Your task to perform on an android device: turn vacation reply on in the gmail app Image 0: 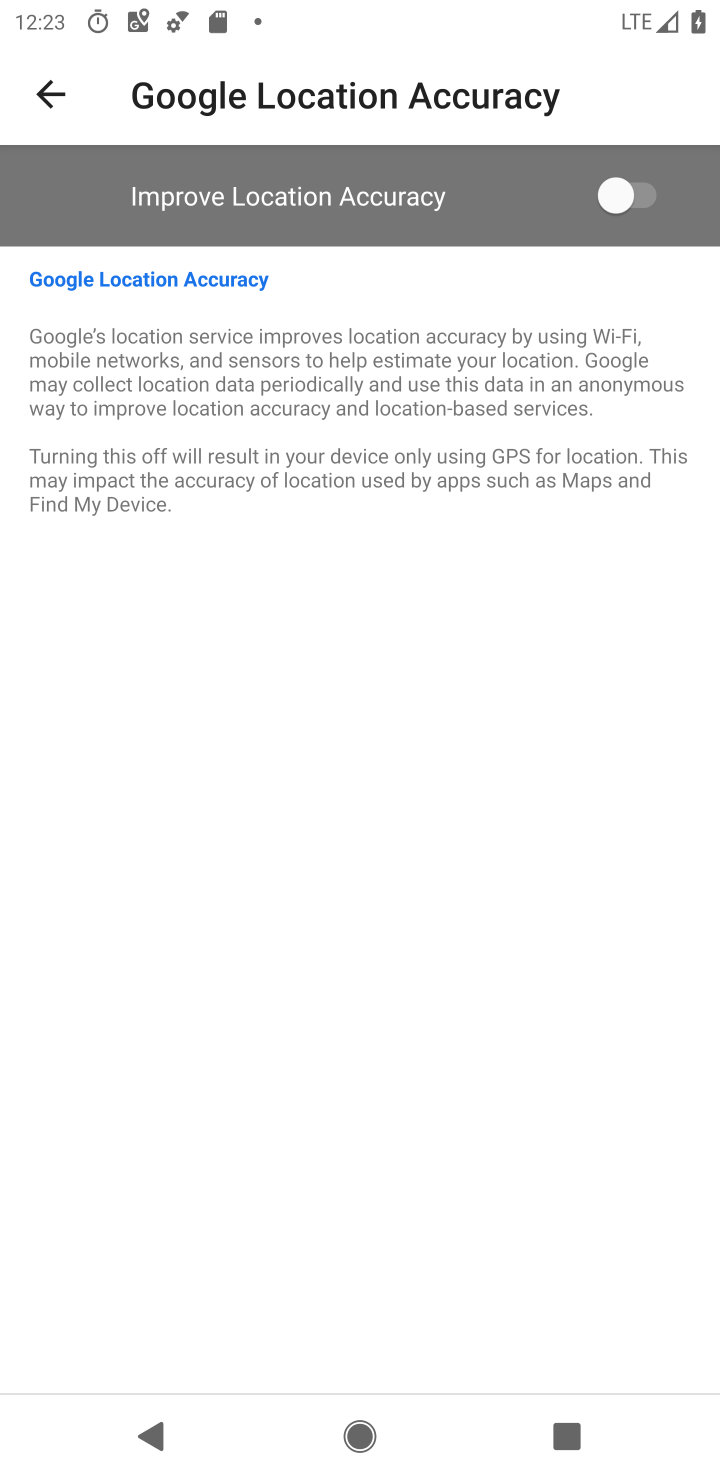
Step 0: click (532, 700)
Your task to perform on an android device: turn vacation reply on in the gmail app Image 1: 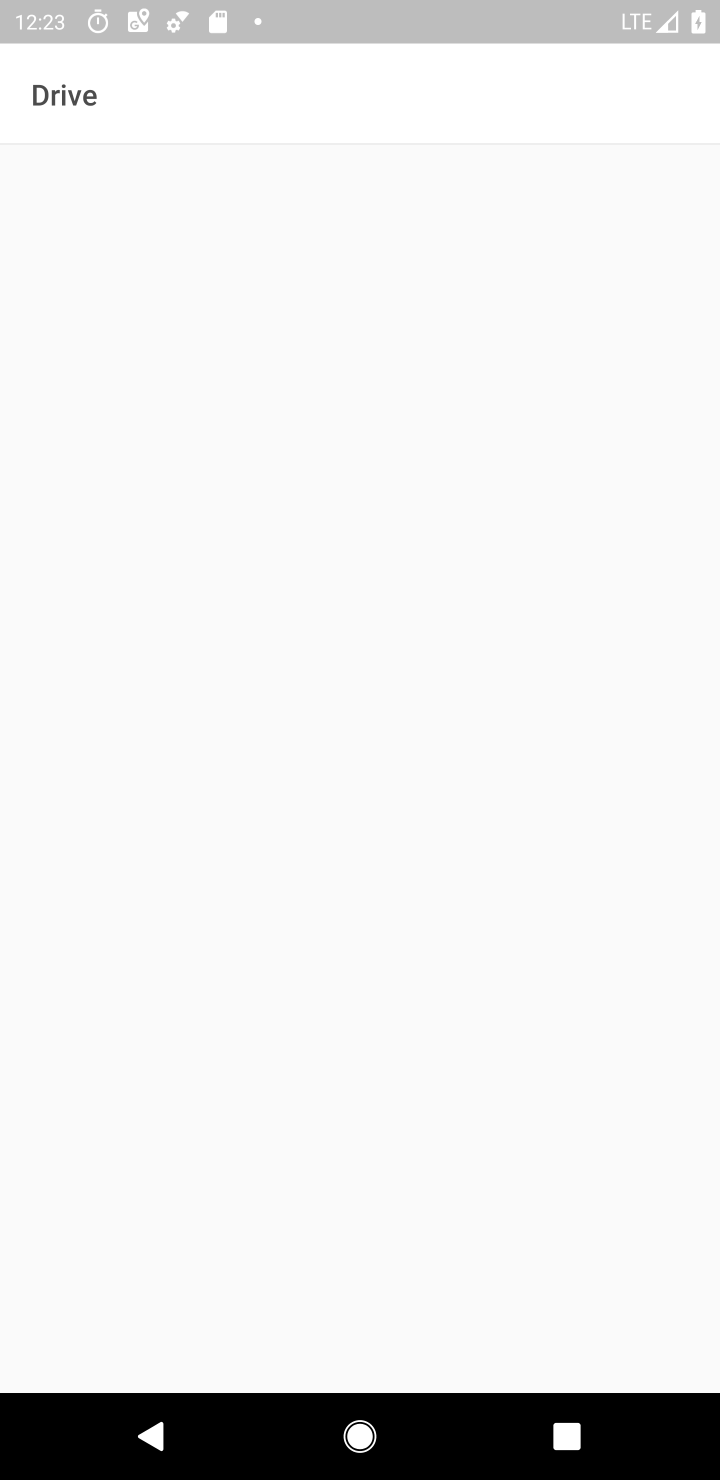
Step 1: press home button
Your task to perform on an android device: turn vacation reply on in the gmail app Image 2: 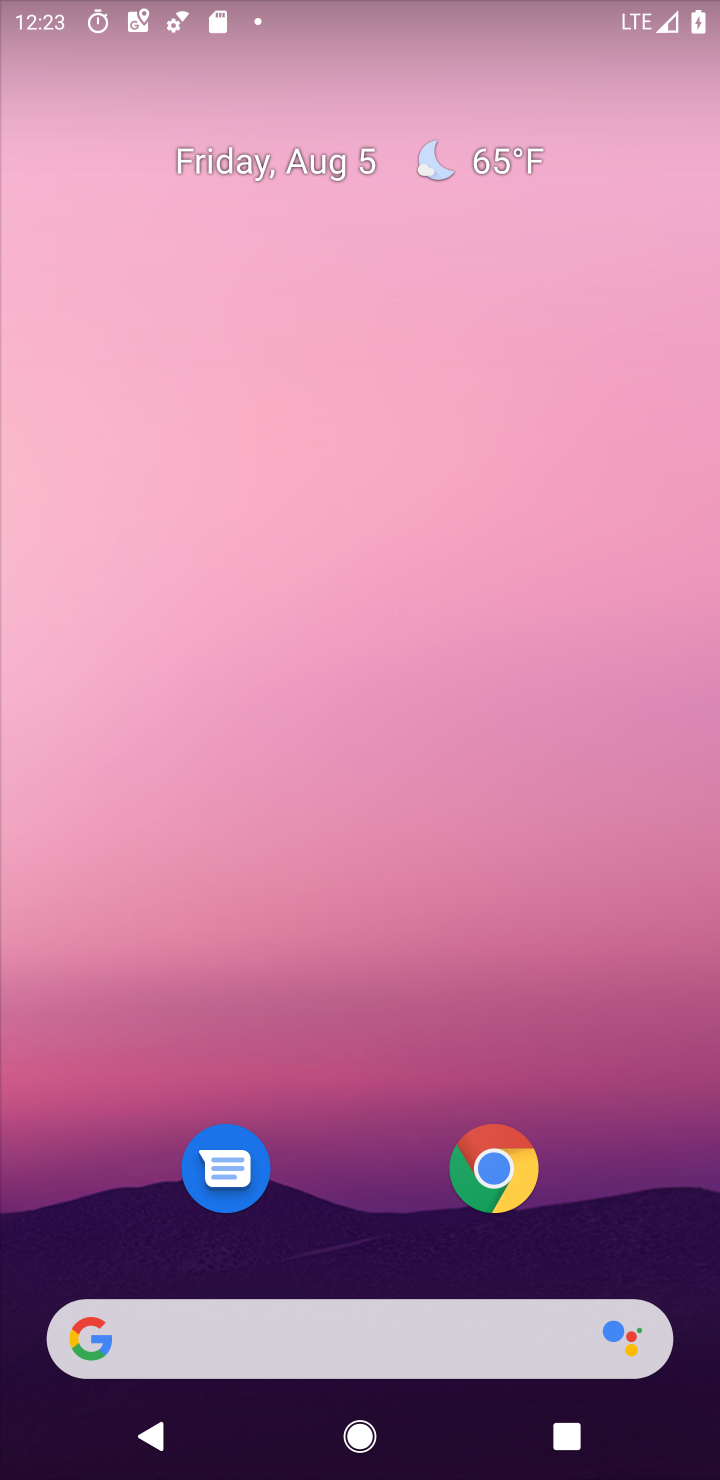
Step 2: drag from (354, 1156) to (404, 41)
Your task to perform on an android device: turn vacation reply on in the gmail app Image 3: 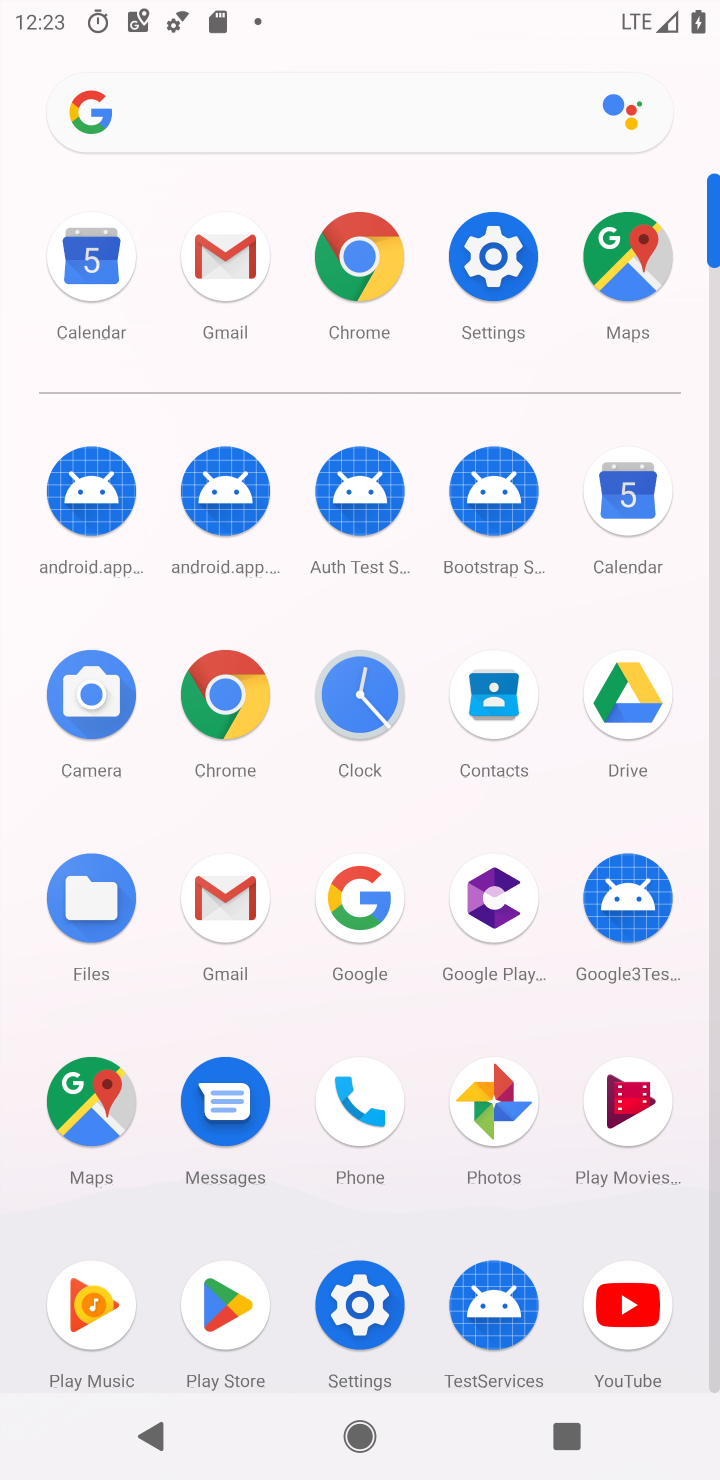
Step 3: click (242, 923)
Your task to perform on an android device: turn vacation reply on in the gmail app Image 4: 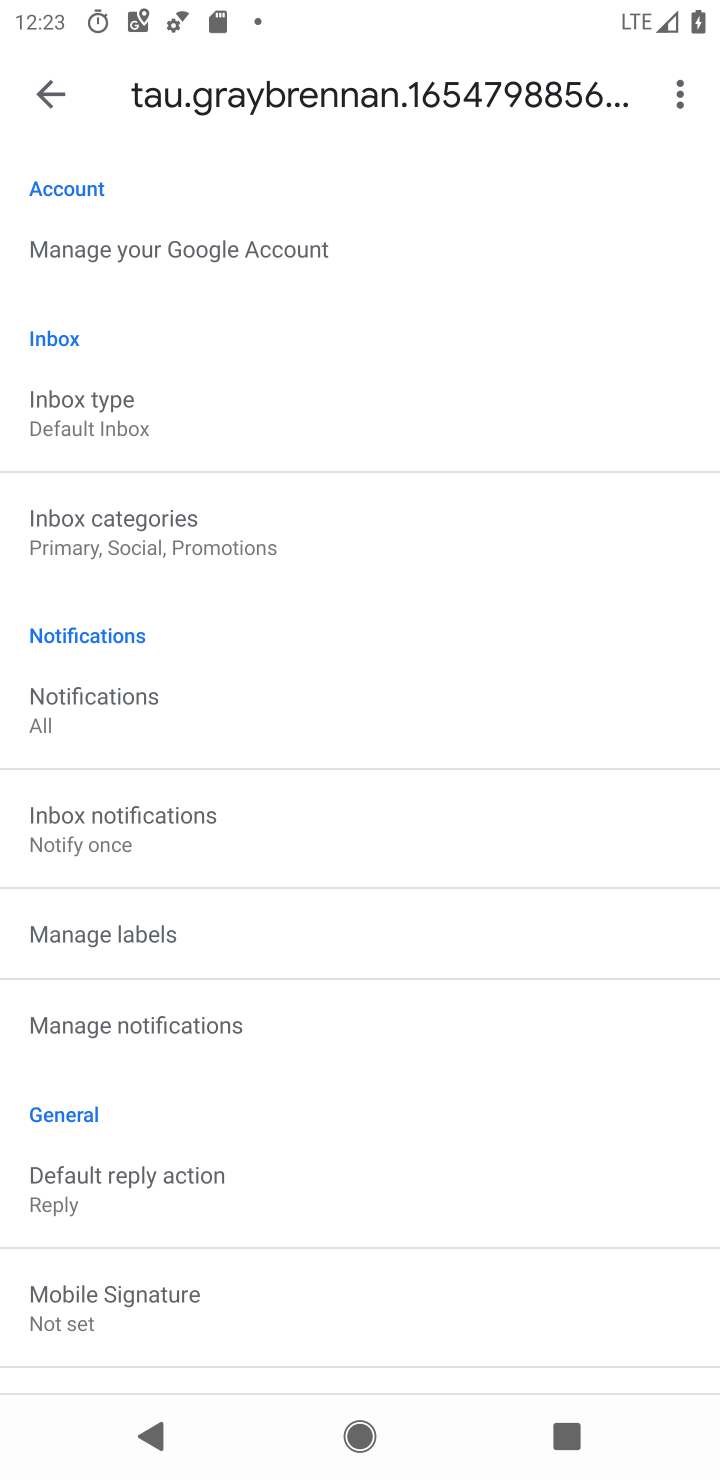
Step 4: drag from (420, 1122) to (491, 209)
Your task to perform on an android device: turn vacation reply on in the gmail app Image 5: 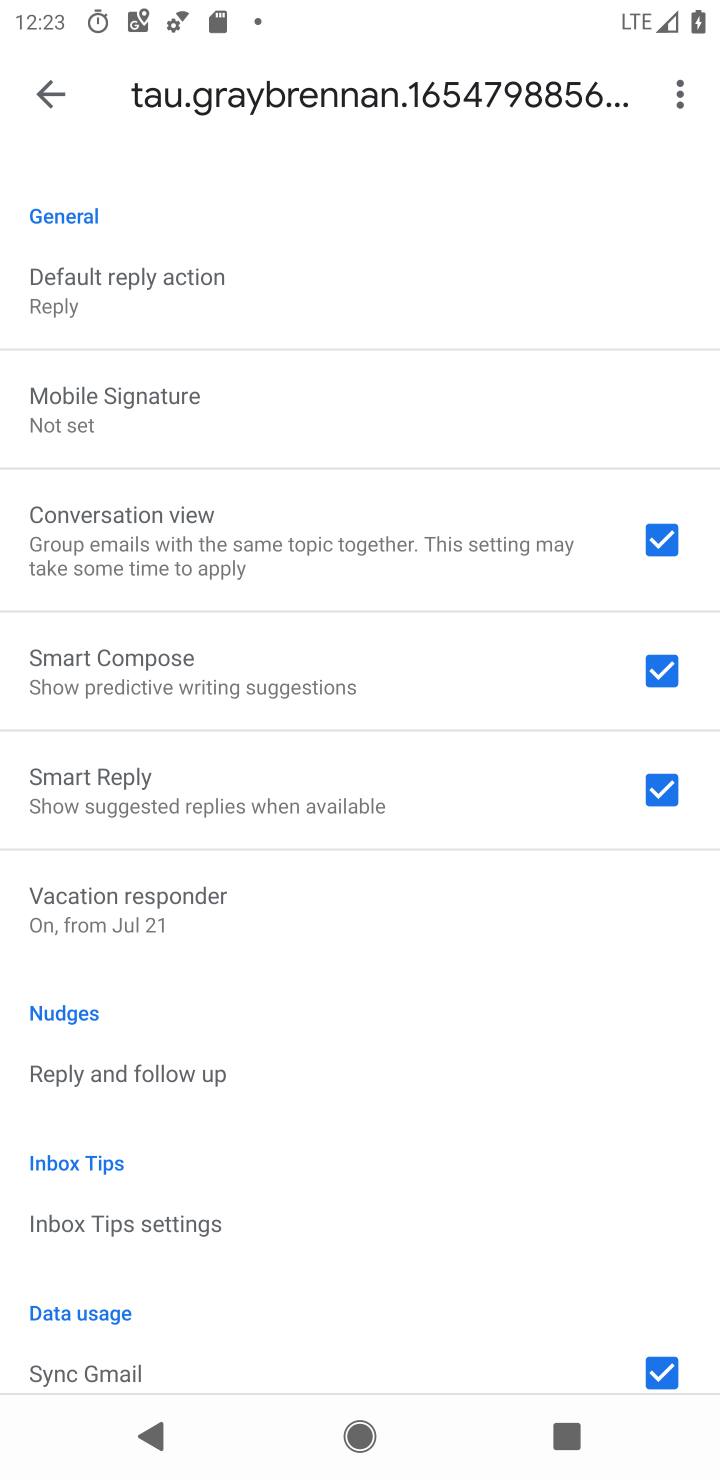
Step 5: click (184, 897)
Your task to perform on an android device: turn vacation reply on in the gmail app Image 6: 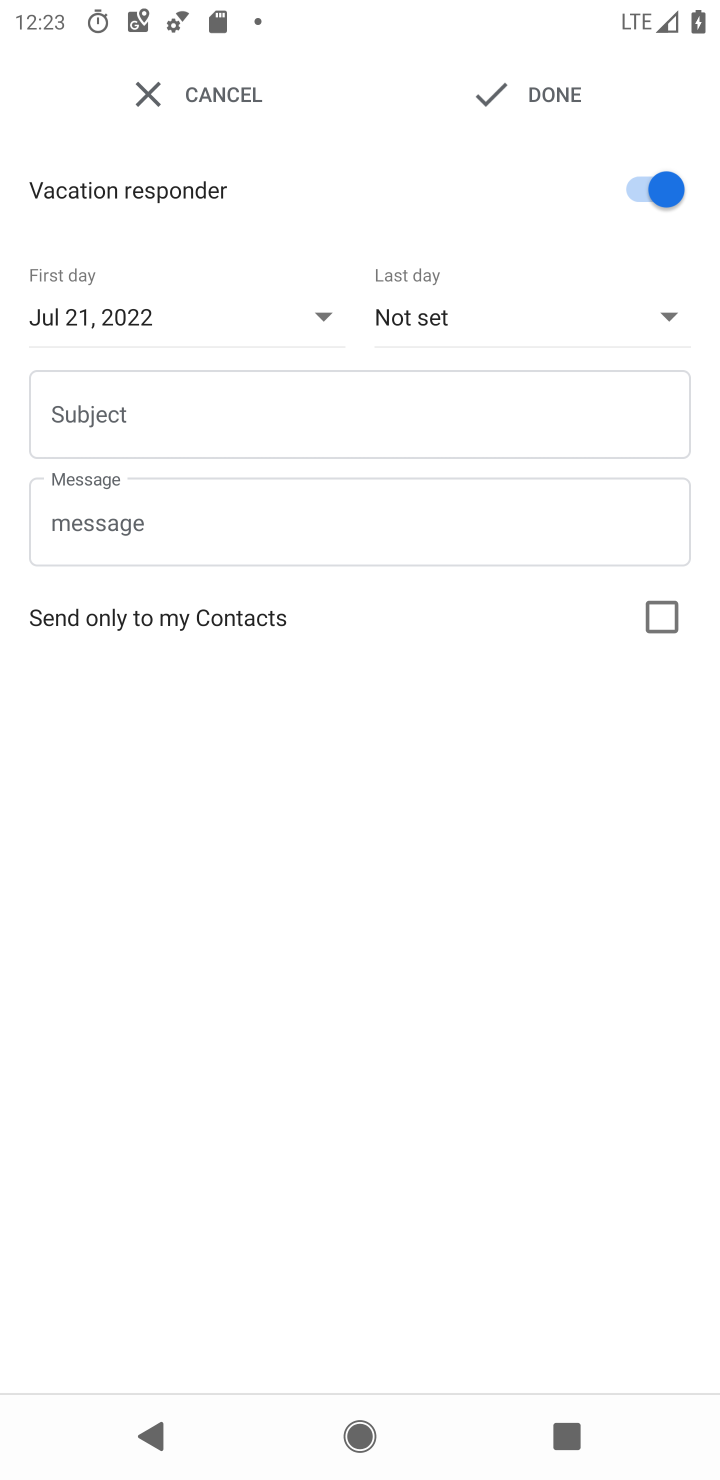
Step 6: task complete